Your task to perform on an android device: Go to battery settings Image 0: 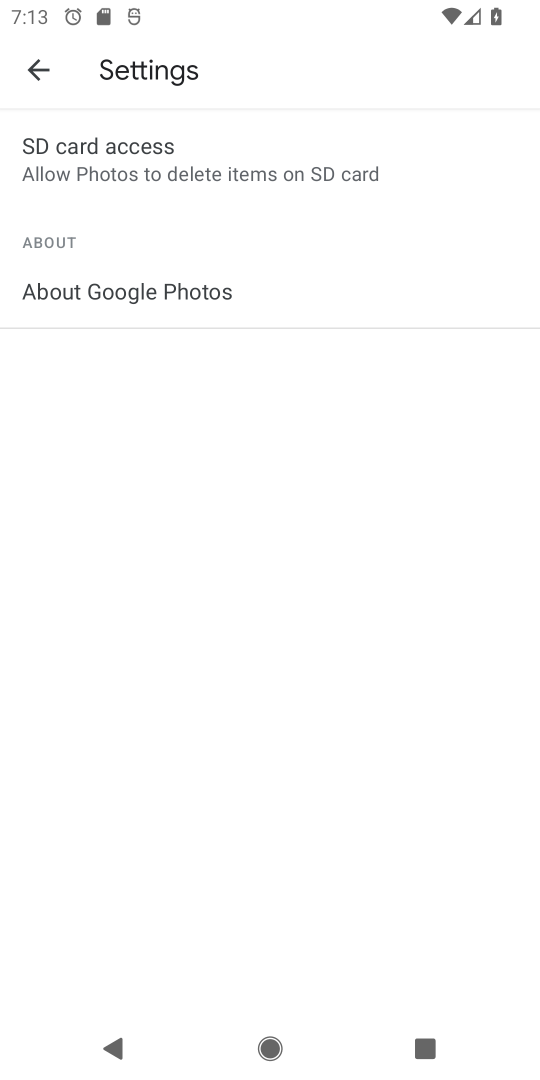
Step 0: press home button
Your task to perform on an android device: Go to battery settings Image 1: 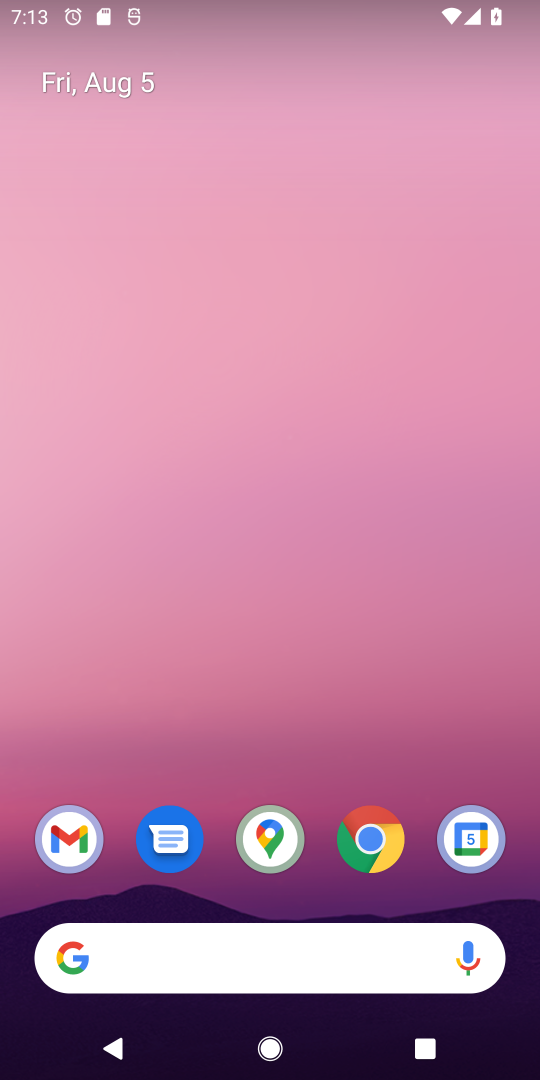
Step 1: drag from (232, 776) to (214, 139)
Your task to perform on an android device: Go to battery settings Image 2: 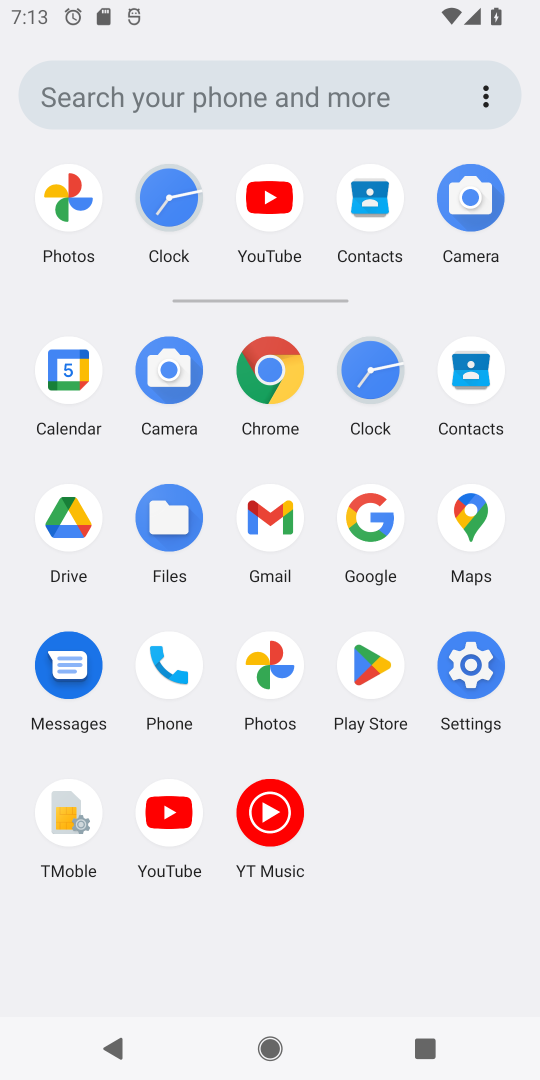
Step 2: click (476, 667)
Your task to perform on an android device: Go to battery settings Image 3: 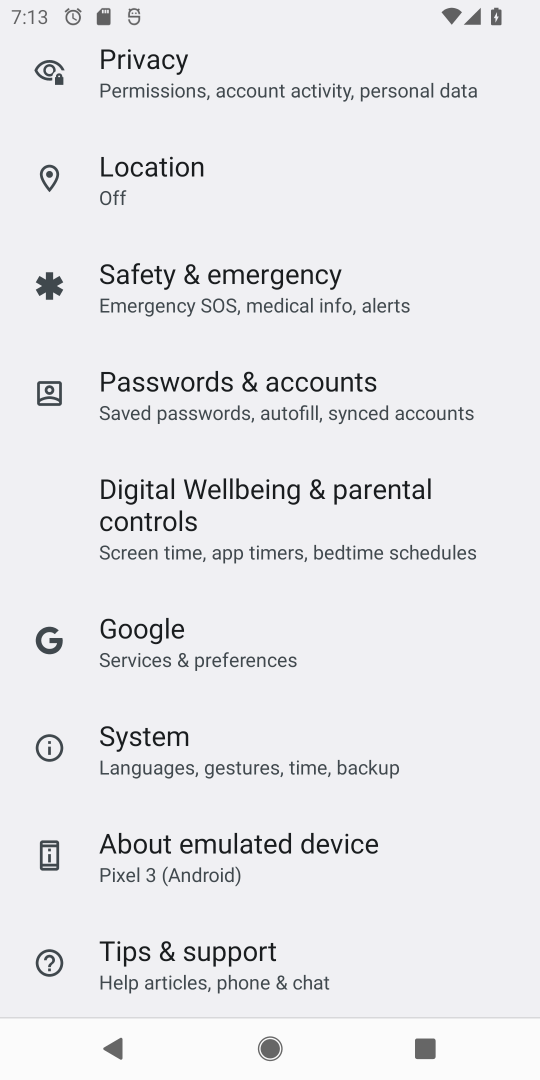
Step 3: drag from (245, 246) to (305, 905)
Your task to perform on an android device: Go to battery settings Image 4: 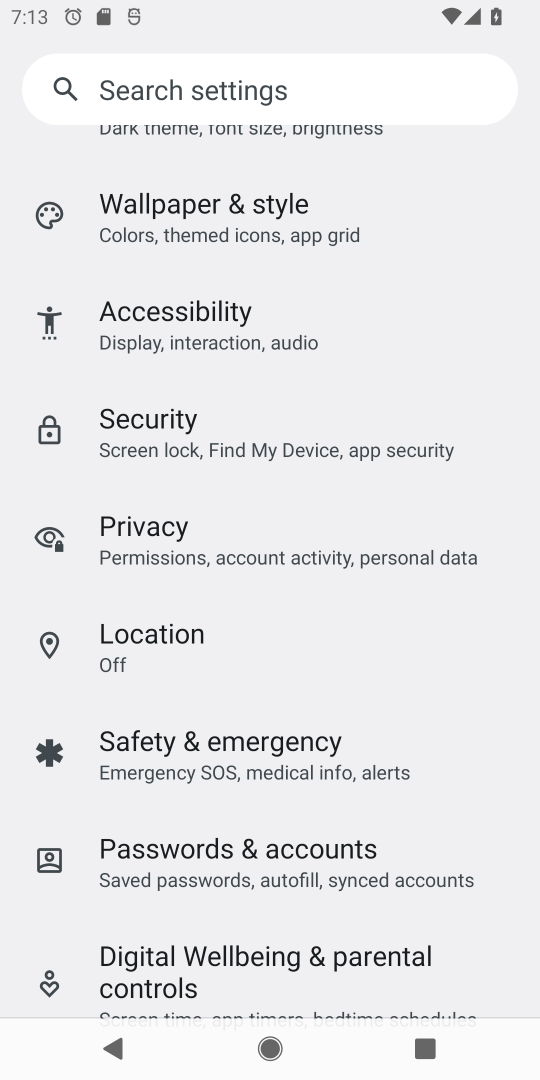
Step 4: drag from (307, 321) to (389, 831)
Your task to perform on an android device: Go to battery settings Image 5: 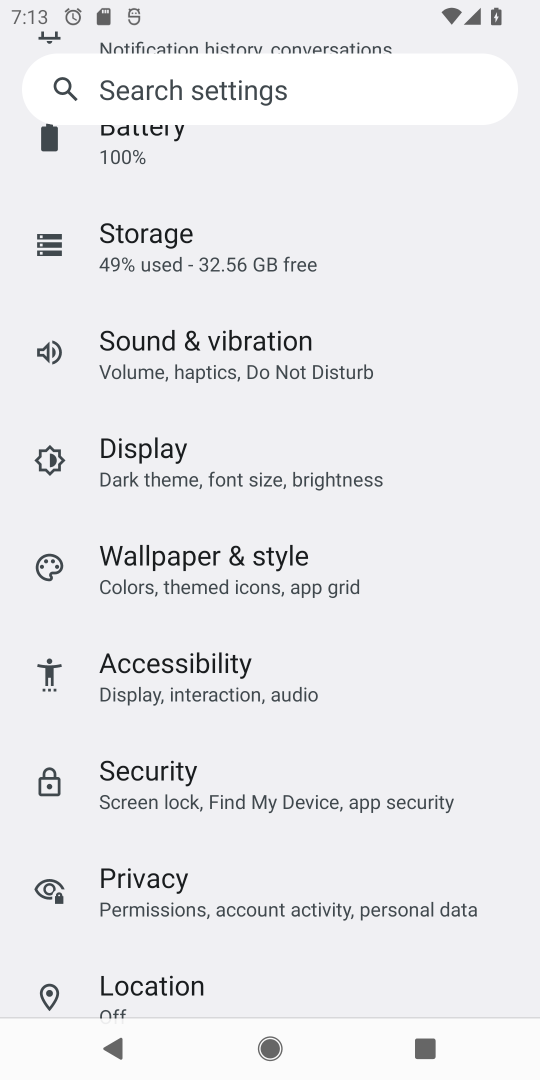
Step 5: drag from (283, 310) to (303, 730)
Your task to perform on an android device: Go to battery settings Image 6: 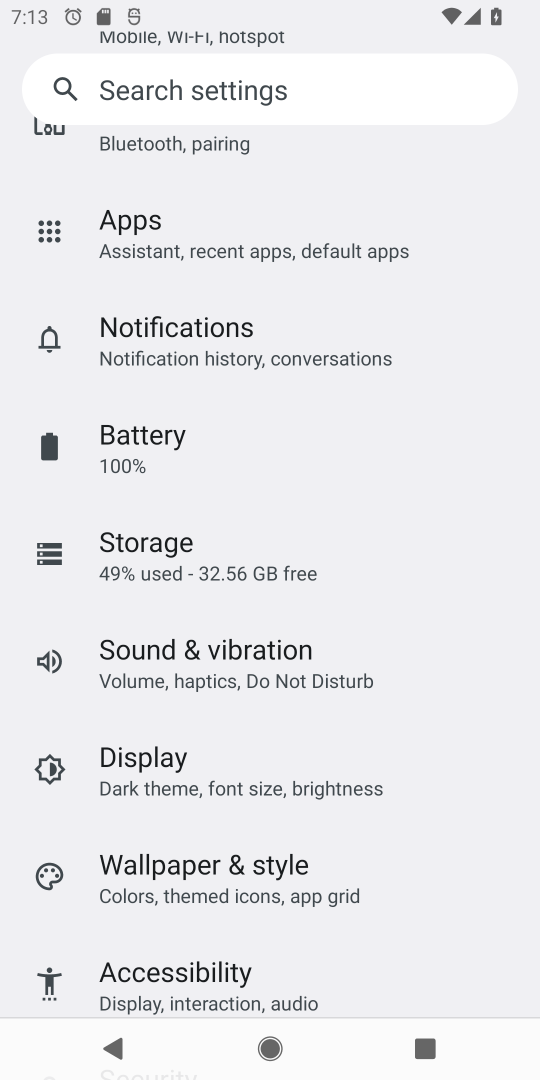
Step 6: click (202, 463)
Your task to perform on an android device: Go to battery settings Image 7: 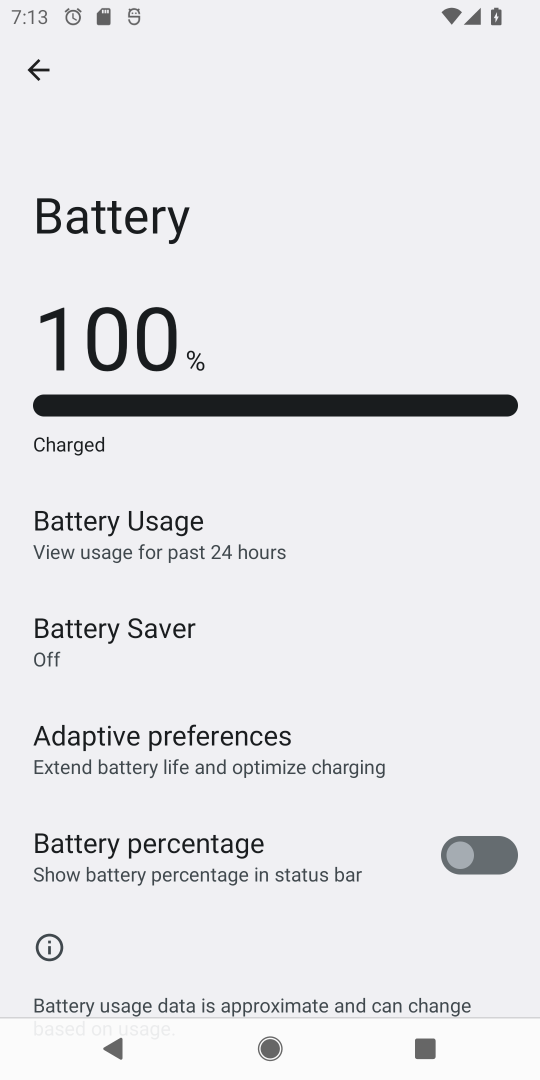
Step 7: task complete